Your task to perform on an android device: toggle pop-ups in chrome Image 0: 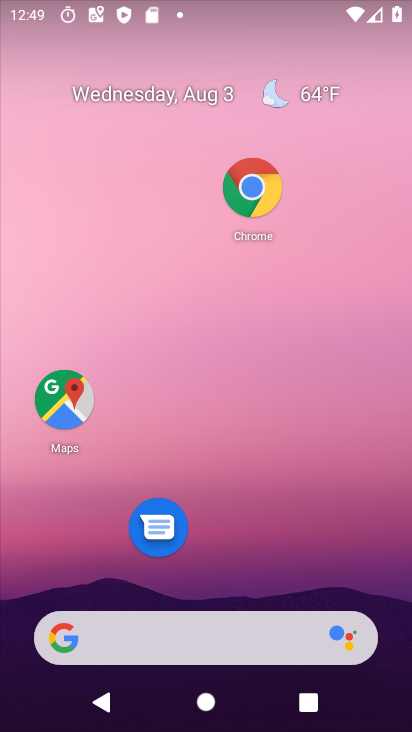
Step 0: drag from (245, 560) to (226, 182)
Your task to perform on an android device: toggle pop-ups in chrome Image 1: 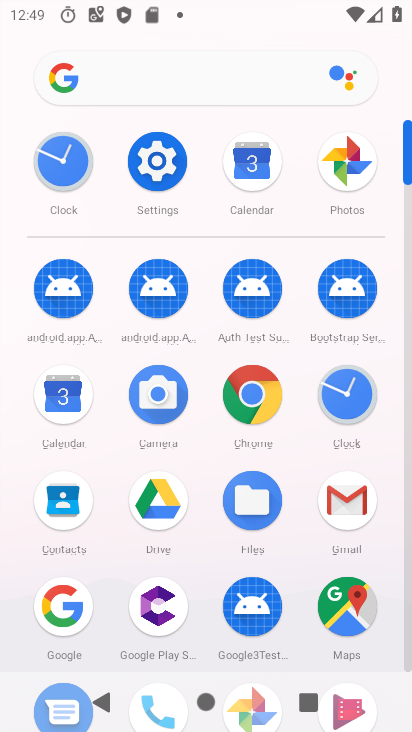
Step 1: click (264, 392)
Your task to perform on an android device: toggle pop-ups in chrome Image 2: 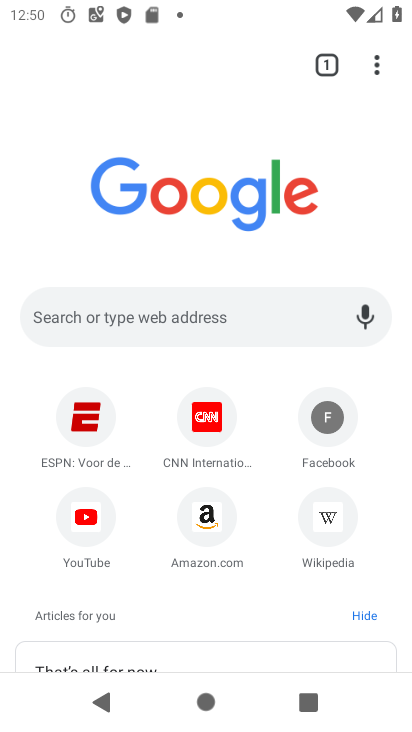
Step 2: click (377, 70)
Your task to perform on an android device: toggle pop-ups in chrome Image 3: 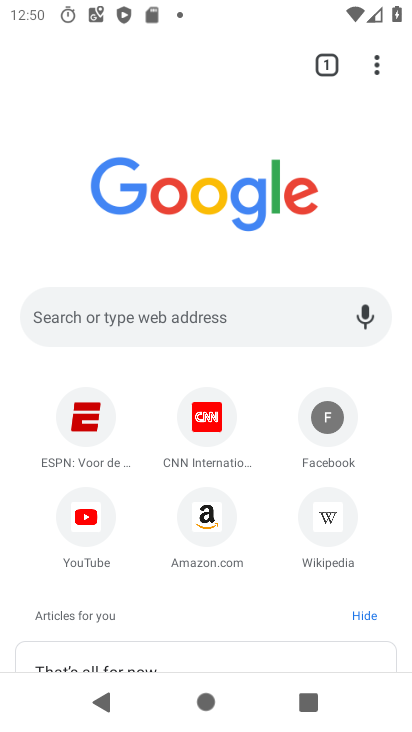
Step 3: click (382, 57)
Your task to perform on an android device: toggle pop-ups in chrome Image 4: 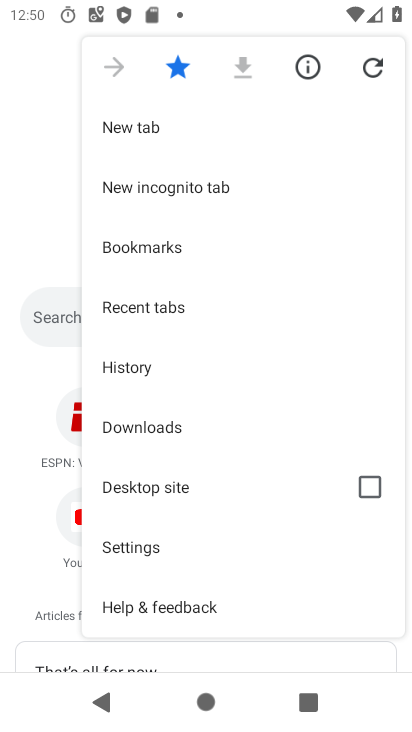
Step 4: click (125, 558)
Your task to perform on an android device: toggle pop-ups in chrome Image 5: 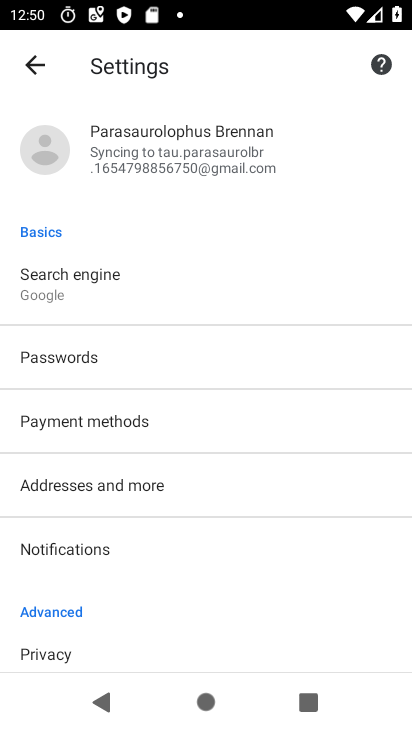
Step 5: drag from (99, 572) to (127, 363)
Your task to perform on an android device: toggle pop-ups in chrome Image 6: 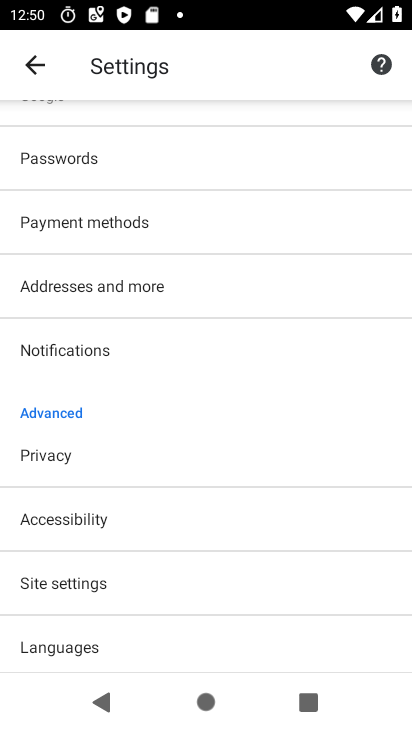
Step 6: click (63, 587)
Your task to perform on an android device: toggle pop-ups in chrome Image 7: 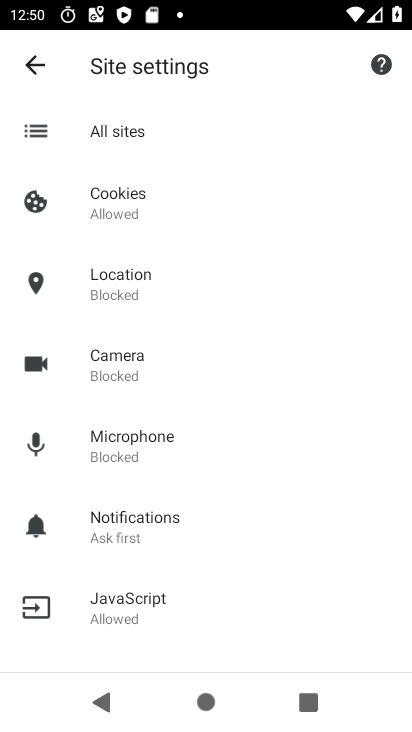
Step 7: drag from (139, 548) to (172, 284)
Your task to perform on an android device: toggle pop-ups in chrome Image 8: 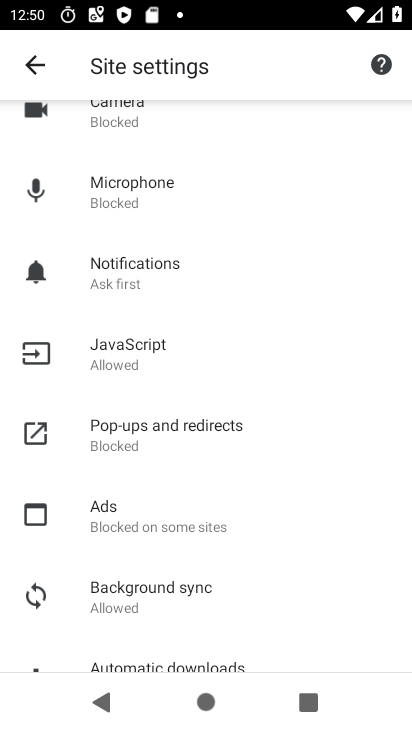
Step 8: click (145, 448)
Your task to perform on an android device: toggle pop-ups in chrome Image 9: 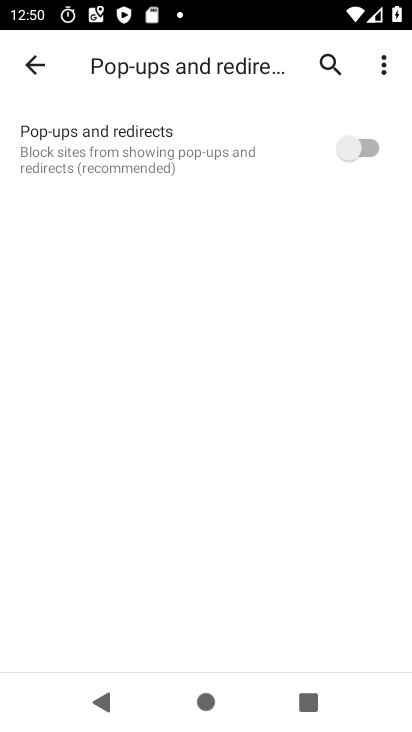
Step 9: click (376, 138)
Your task to perform on an android device: toggle pop-ups in chrome Image 10: 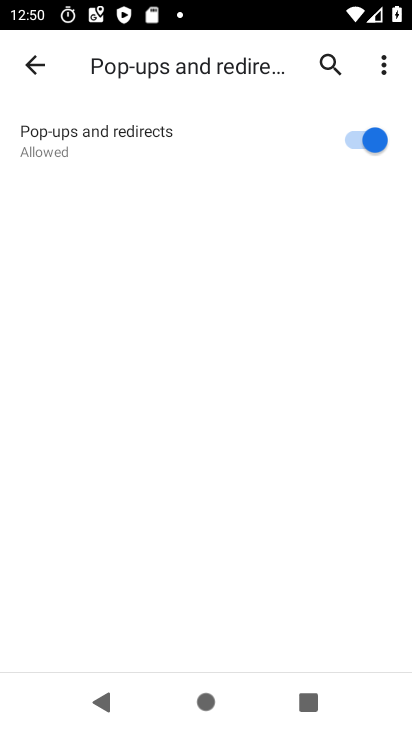
Step 10: task complete